Your task to perform on an android device: turn notification dots on Image 0: 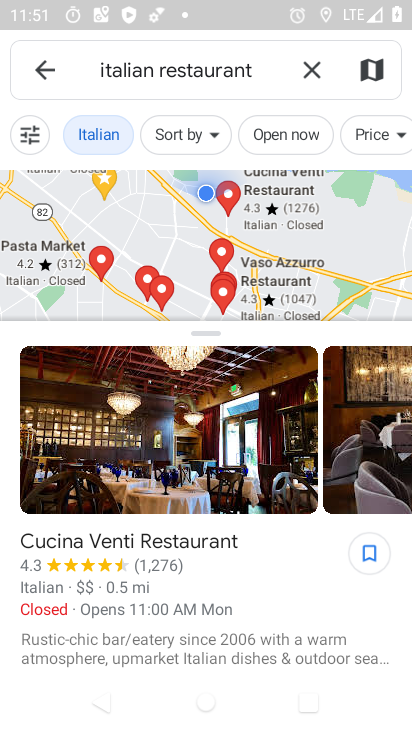
Step 0: press home button
Your task to perform on an android device: turn notification dots on Image 1: 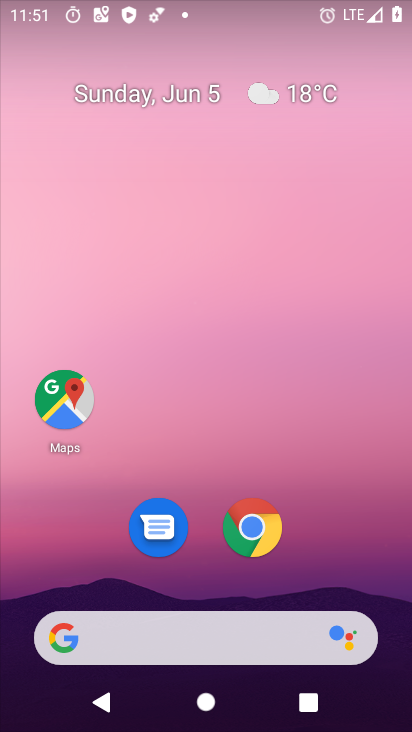
Step 1: drag from (384, 564) to (371, 94)
Your task to perform on an android device: turn notification dots on Image 2: 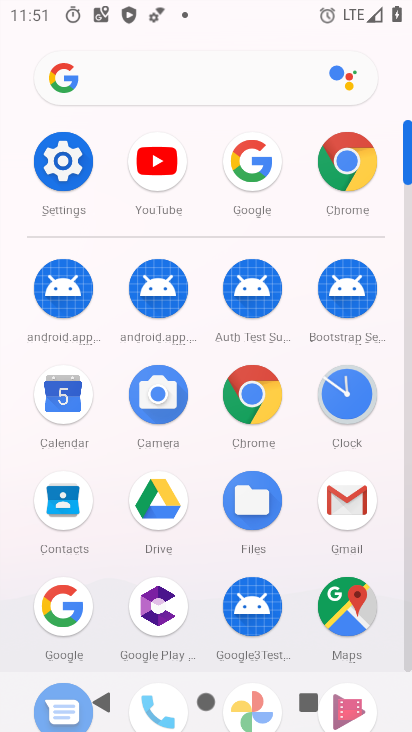
Step 2: click (76, 177)
Your task to perform on an android device: turn notification dots on Image 3: 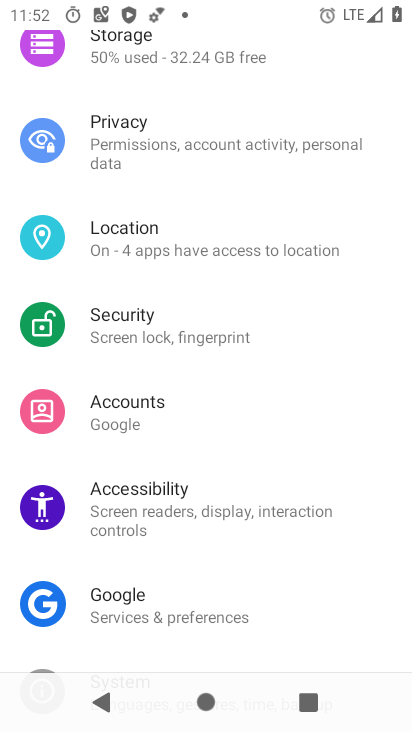
Step 3: drag from (297, 585) to (287, 730)
Your task to perform on an android device: turn notification dots on Image 4: 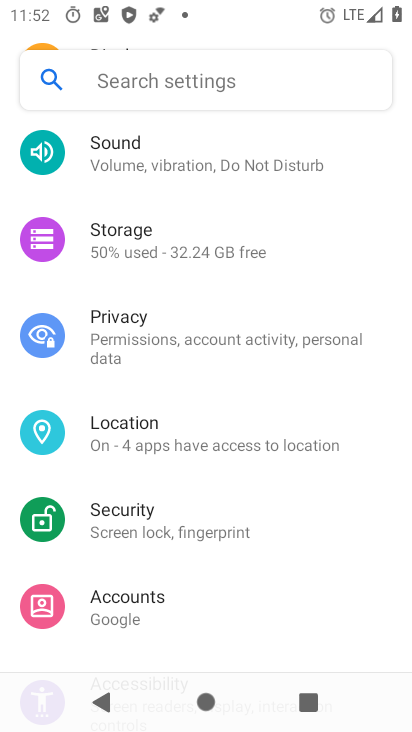
Step 4: drag from (305, 175) to (226, 727)
Your task to perform on an android device: turn notification dots on Image 5: 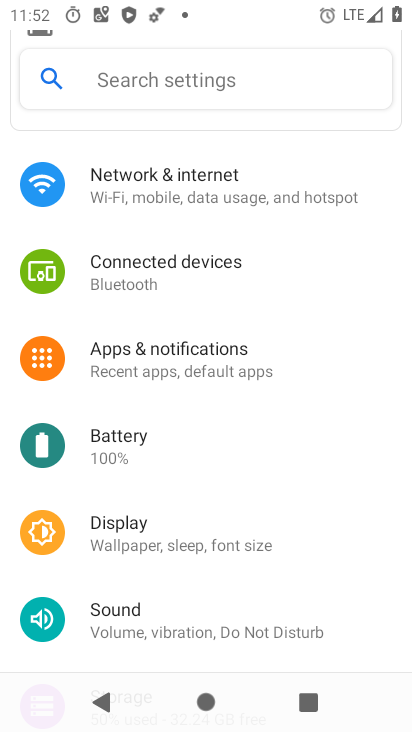
Step 5: drag from (214, 239) to (235, 587)
Your task to perform on an android device: turn notification dots on Image 6: 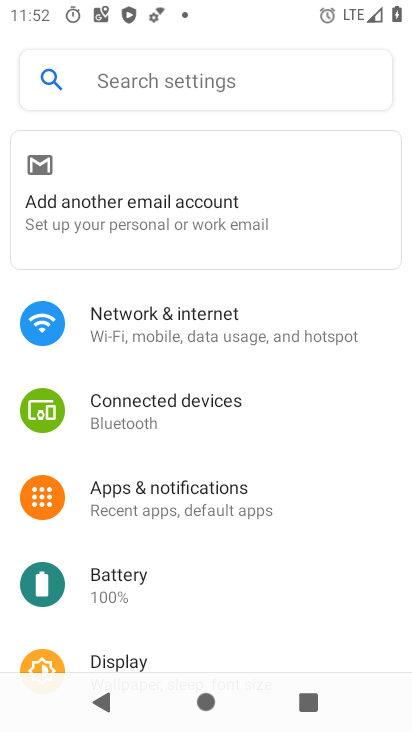
Step 6: click (184, 500)
Your task to perform on an android device: turn notification dots on Image 7: 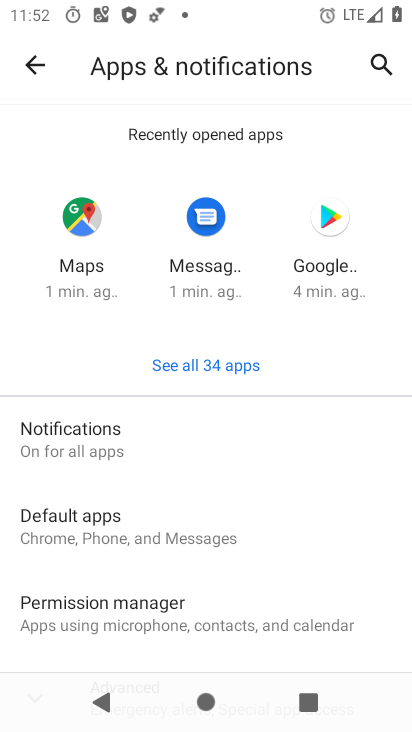
Step 7: click (200, 436)
Your task to perform on an android device: turn notification dots on Image 8: 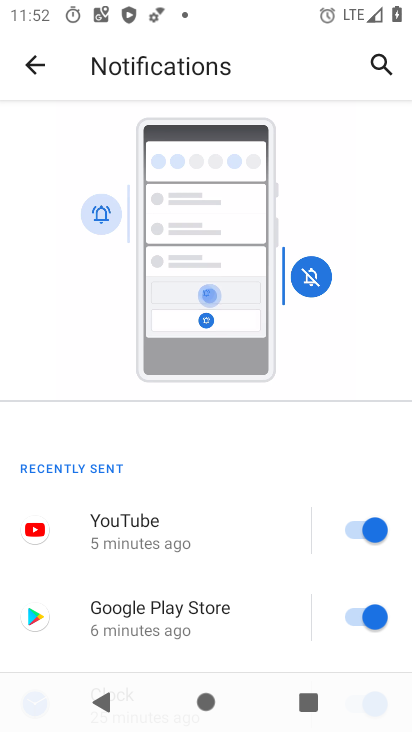
Step 8: drag from (233, 589) to (234, 202)
Your task to perform on an android device: turn notification dots on Image 9: 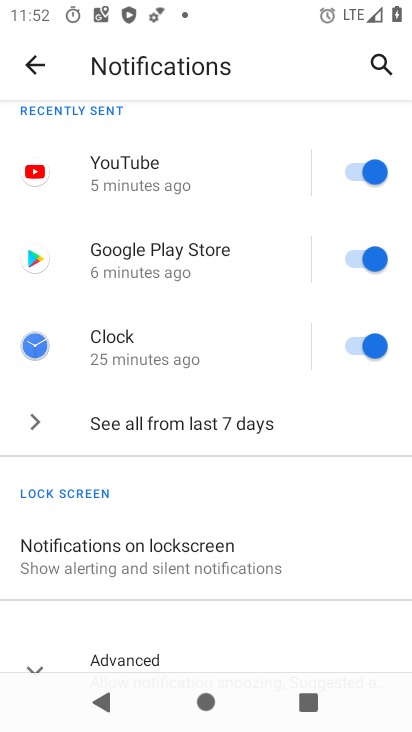
Step 9: drag from (207, 512) to (215, 206)
Your task to perform on an android device: turn notification dots on Image 10: 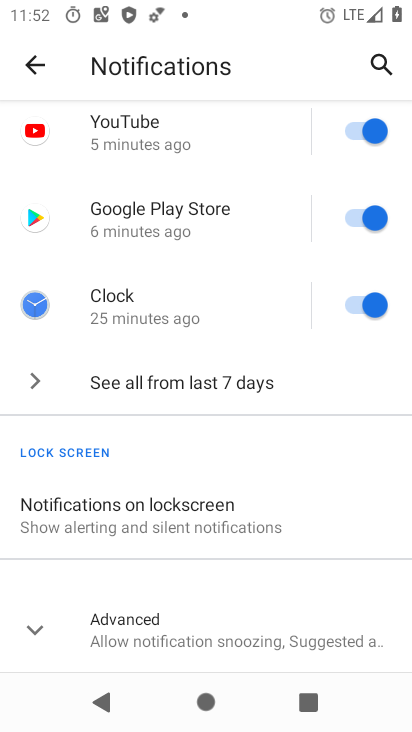
Step 10: click (175, 627)
Your task to perform on an android device: turn notification dots on Image 11: 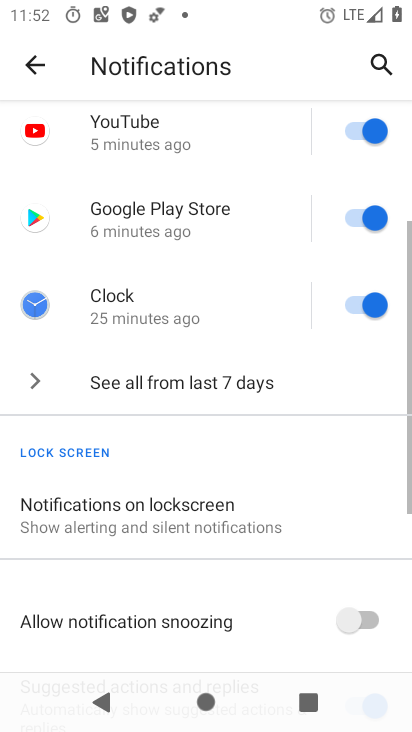
Step 11: drag from (219, 559) to (271, 46)
Your task to perform on an android device: turn notification dots on Image 12: 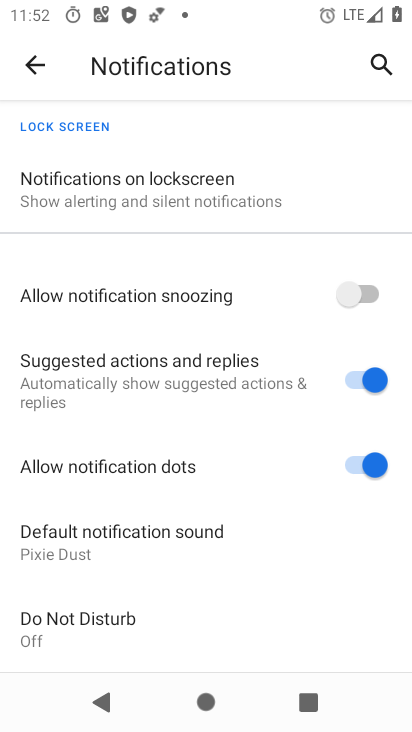
Step 12: click (361, 479)
Your task to perform on an android device: turn notification dots on Image 13: 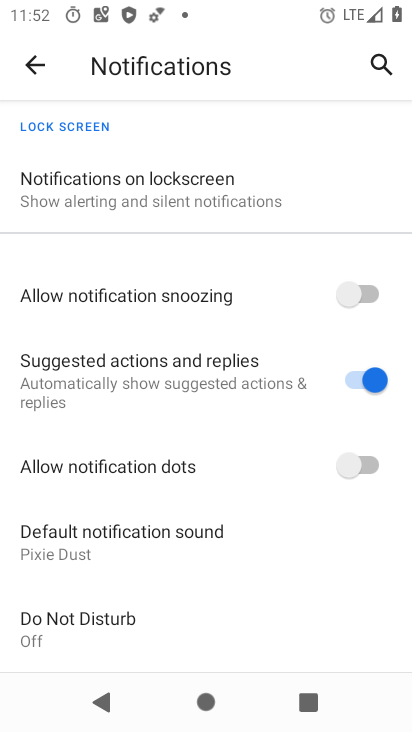
Step 13: click (357, 465)
Your task to perform on an android device: turn notification dots on Image 14: 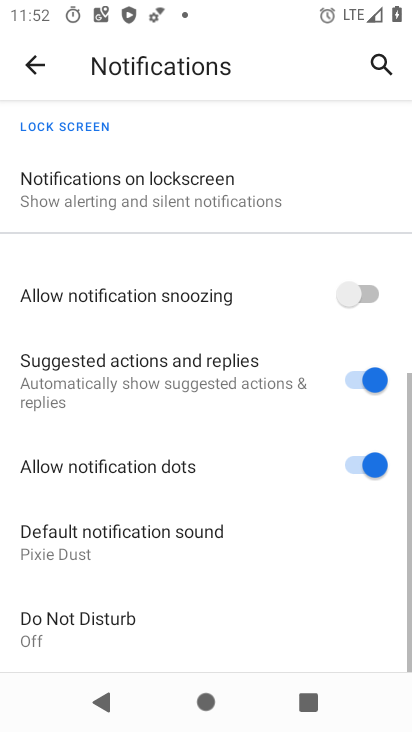
Step 14: task complete